Your task to perform on an android device: Open display settings Image 0: 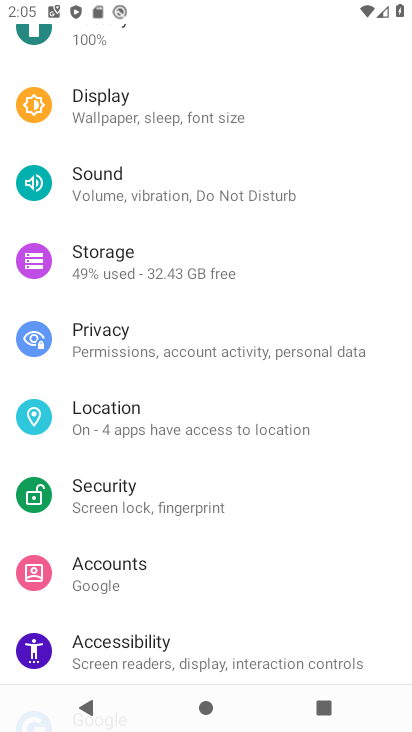
Step 0: click (178, 114)
Your task to perform on an android device: Open display settings Image 1: 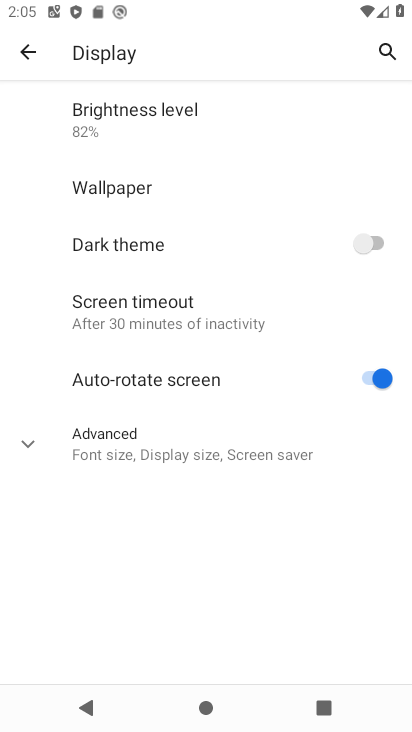
Step 1: task complete